Your task to perform on an android device: Open calendar and show me the second week of next month Image 0: 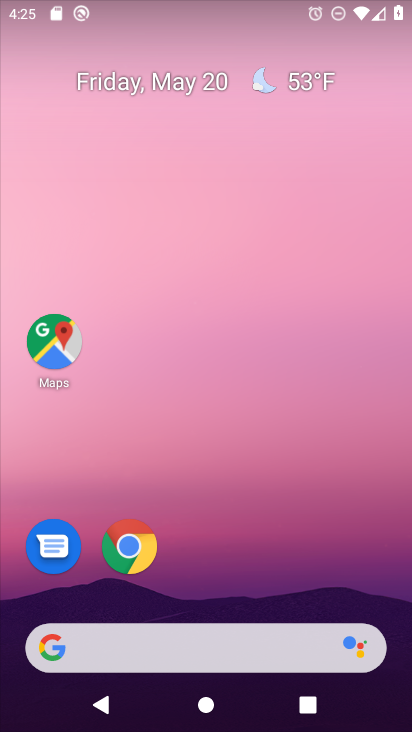
Step 0: drag from (247, 529) to (228, 162)
Your task to perform on an android device: Open calendar and show me the second week of next month Image 1: 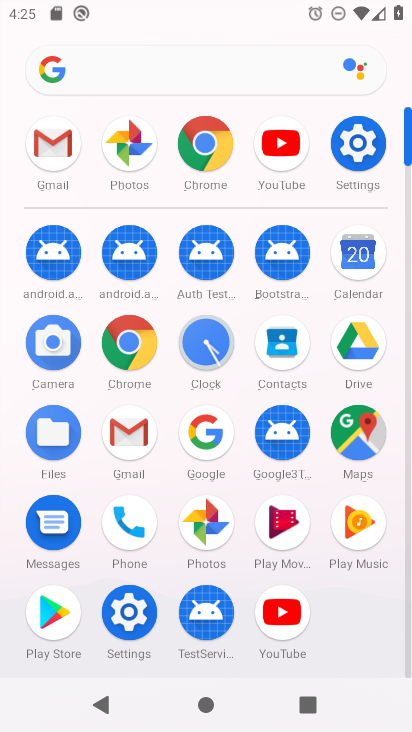
Step 1: click (369, 256)
Your task to perform on an android device: Open calendar and show me the second week of next month Image 2: 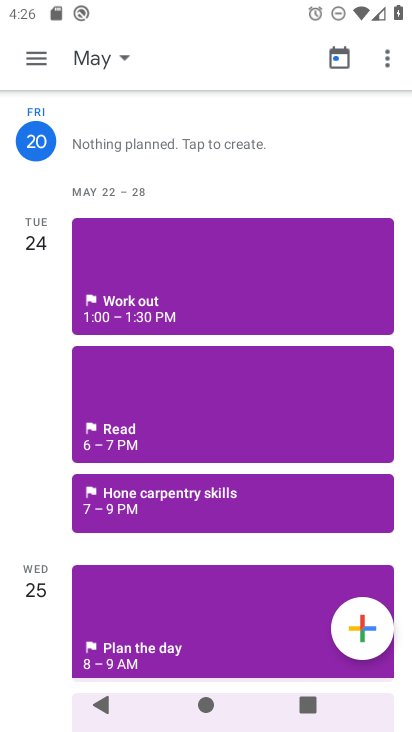
Step 2: click (99, 58)
Your task to perform on an android device: Open calendar and show me the second week of next month Image 3: 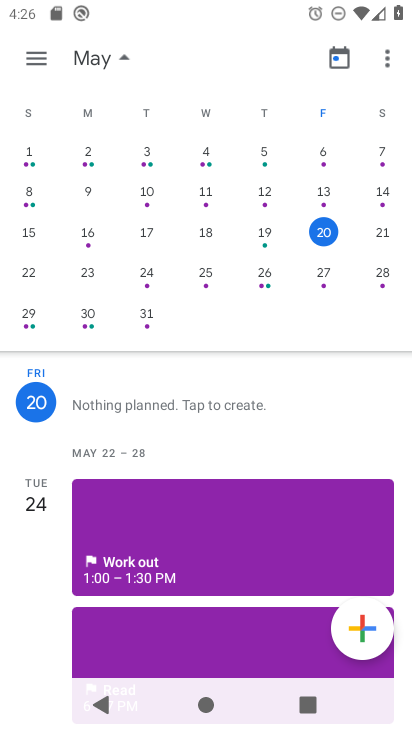
Step 3: drag from (355, 255) to (66, 214)
Your task to perform on an android device: Open calendar and show me the second week of next month Image 4: 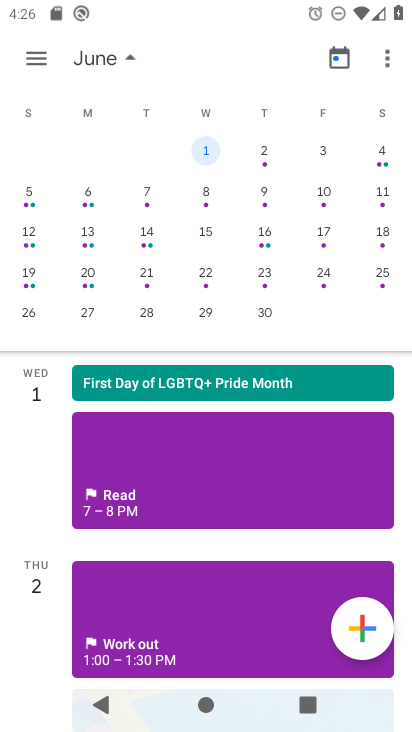
Step 4: click (24, 228)
Your task to perform on an android device: Open calendar and show me the second week of next month Image 5: 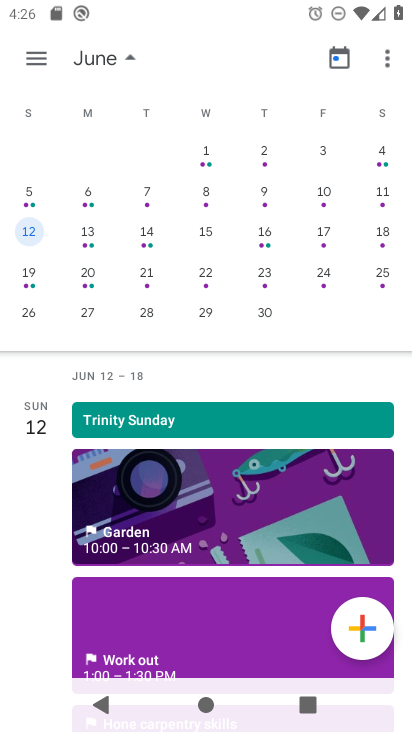
Step 5: click (48, 49)
Your task to perform on an android device: Open calendar and show me the second week of next month Image 6: 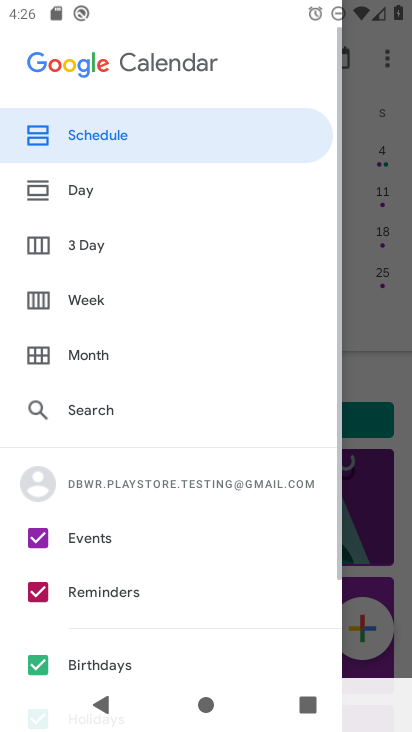
Step 6: click (105, 295)
Your task to perform on an android device: Open calendar and show me the second week of next month Image 7: 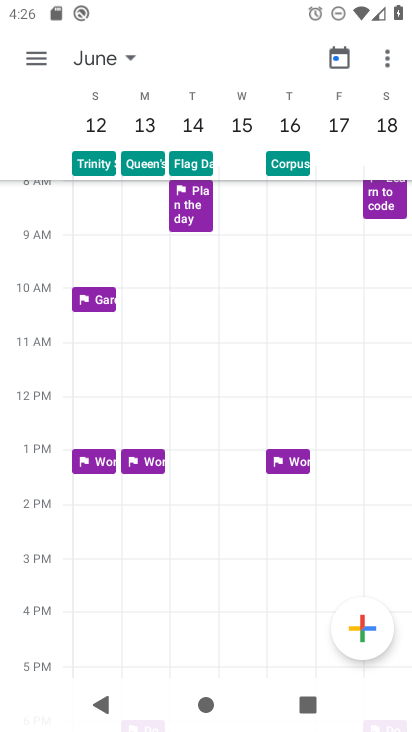
Step 7: task complete